Your task to perform on an android device: Open wifi settings Image 0: 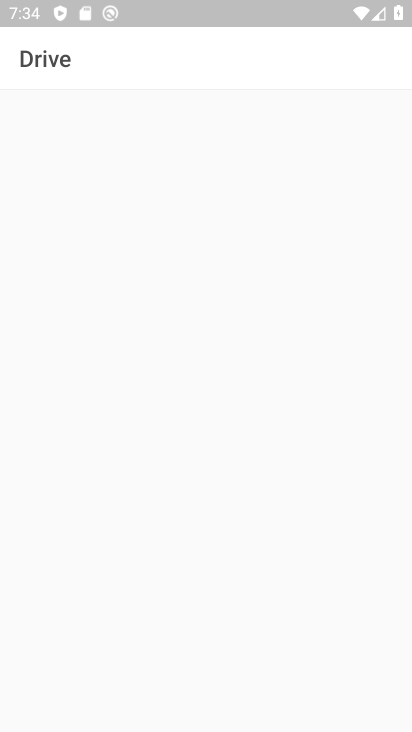
Step 0: press home button
Your task to perform on an android device: Open wifi settings Image 1: 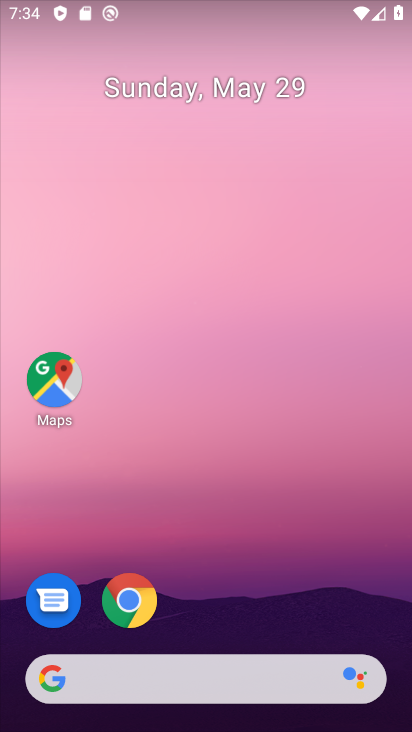
Step 1: drag from (217, 596) to (229, 6)
Your task to perform on an android device: Open wifi settings Image 2: 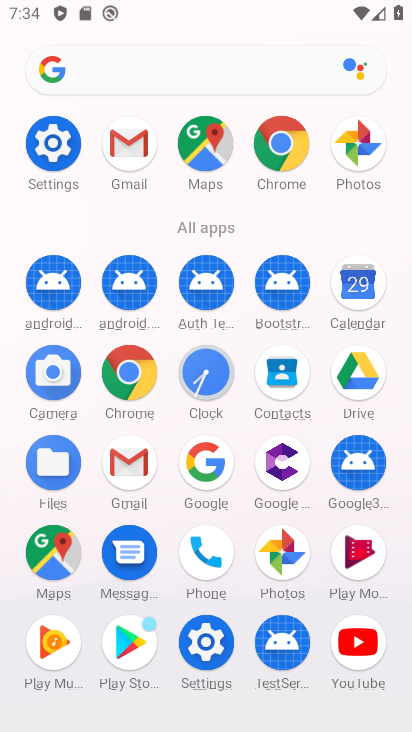
Step 2: click (207, 651)
Your task to perform on an android device: Open wifi settings Image 3: 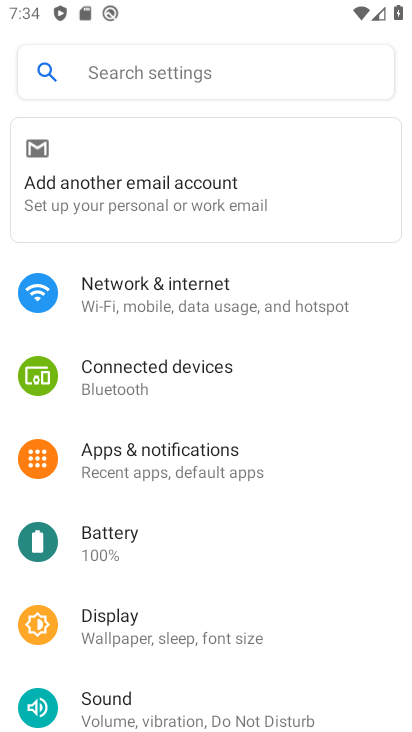
Step 3: click (164, 306)
Your task to perform on an android device: Open wifi settings Image 4: 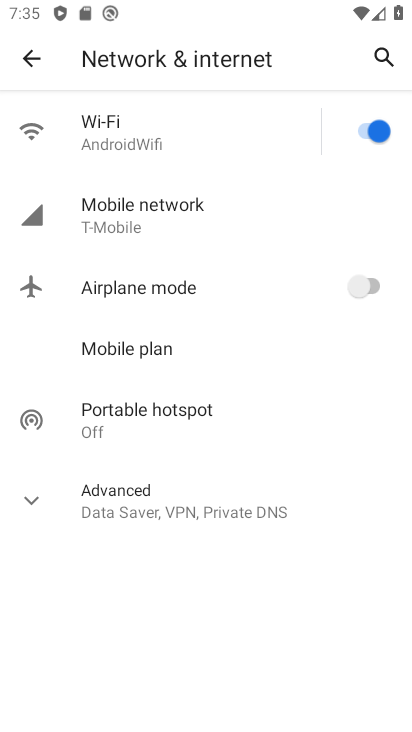
Step 4: click (101, 135)
Your task to perform on an android device: Open wifi settings Image 5: 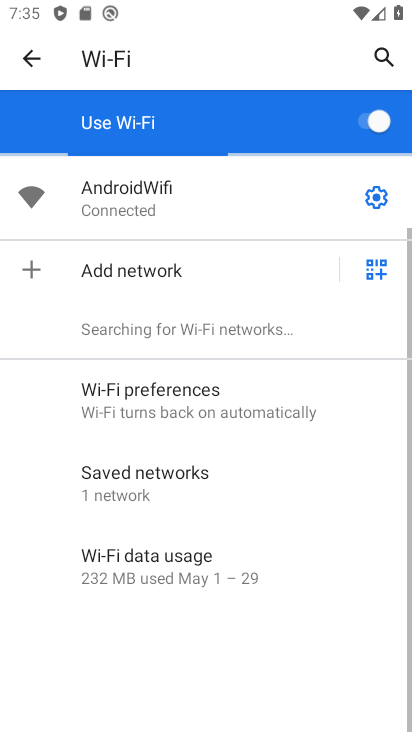
Step 5: task complete